Your task to perform on an android device: Empty the shopping cart on target.com. Add logitech g pro to the cart on target.com, then select checkout. Image 0: 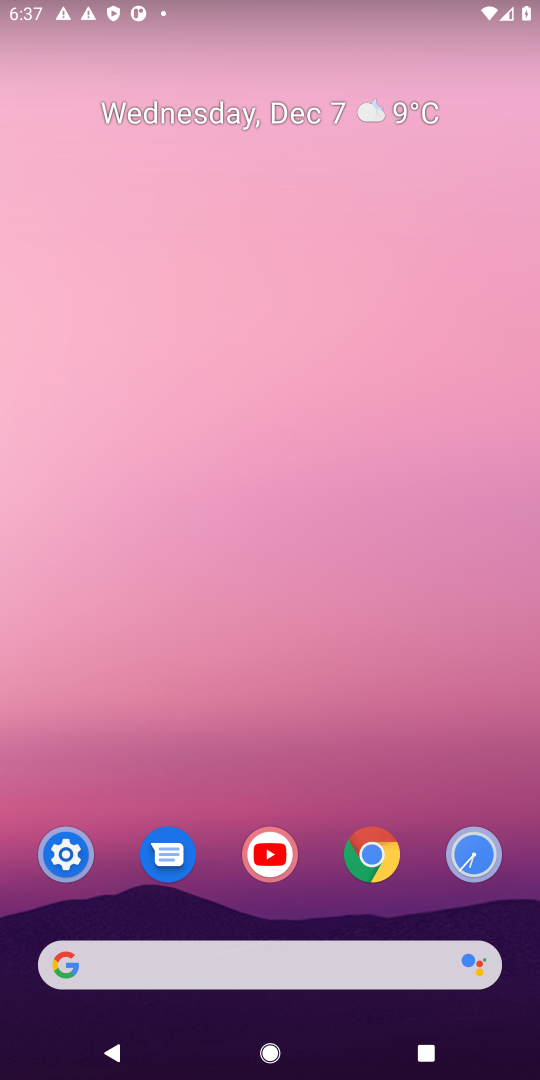
Step 0: click (146, 965)
Your task to perform on an android device: Empty the shopping cart on target.com. Add logitech g pro to the cart on target.com, then select checkout. Image 1: 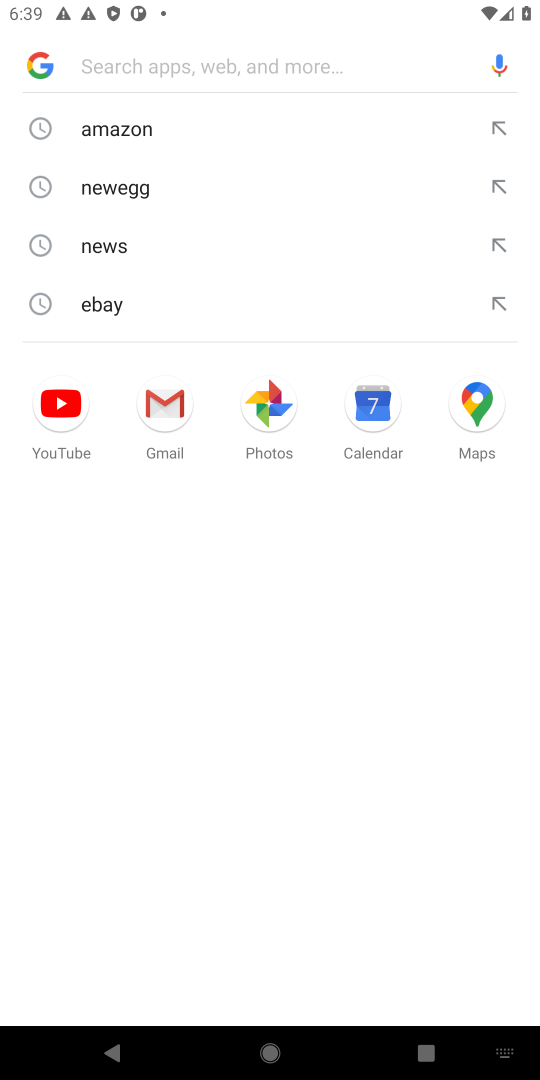
Step 1: type "target"
Your task to perform on an android device: Empty the shopping cart on target.com. Add logitech g pro to the cart on target.com, then select checkout. Image 2: 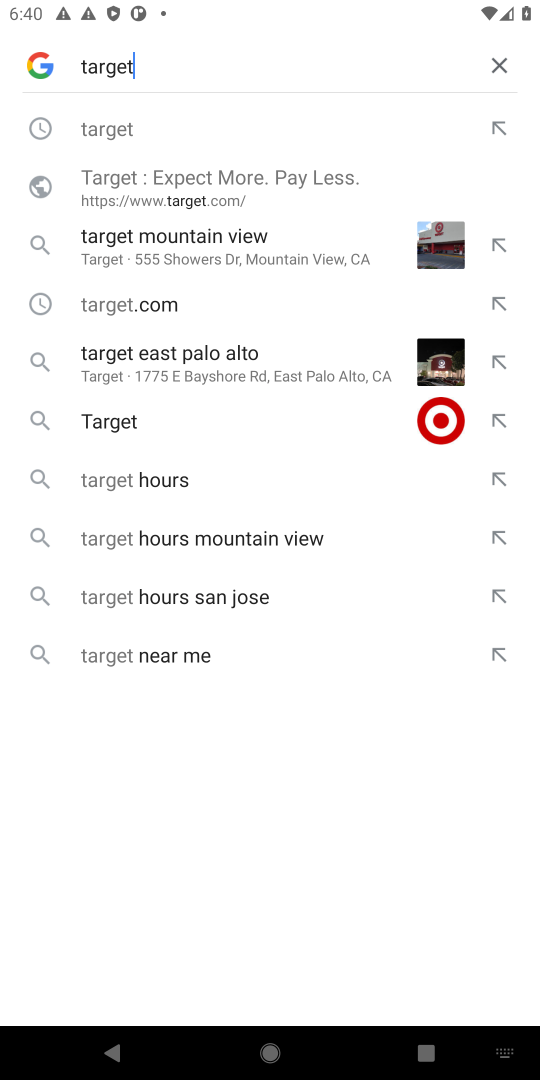
Step 2: click (294, 419)
Your task to perform on an android device: Empty the shopping cart on target.com. Add logitech g pro to the cart on target.com, then select checkout. Image 3: 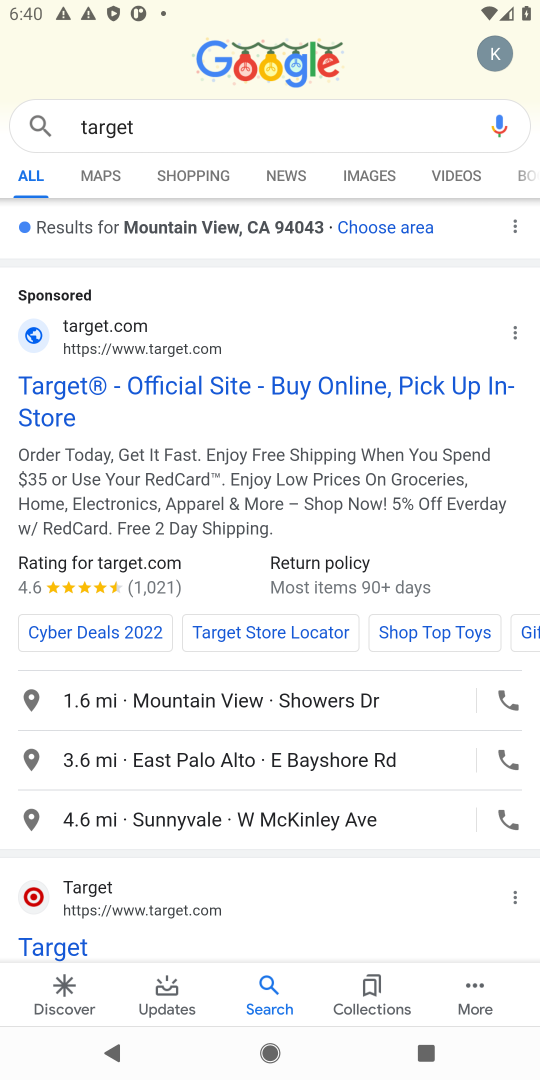
Step 3: click (180, 374)
Your task to perform on an android device: Empty the shopping cart on target.com. Add logitech g pro to the cart on target.com, then select checkout. Image 4: 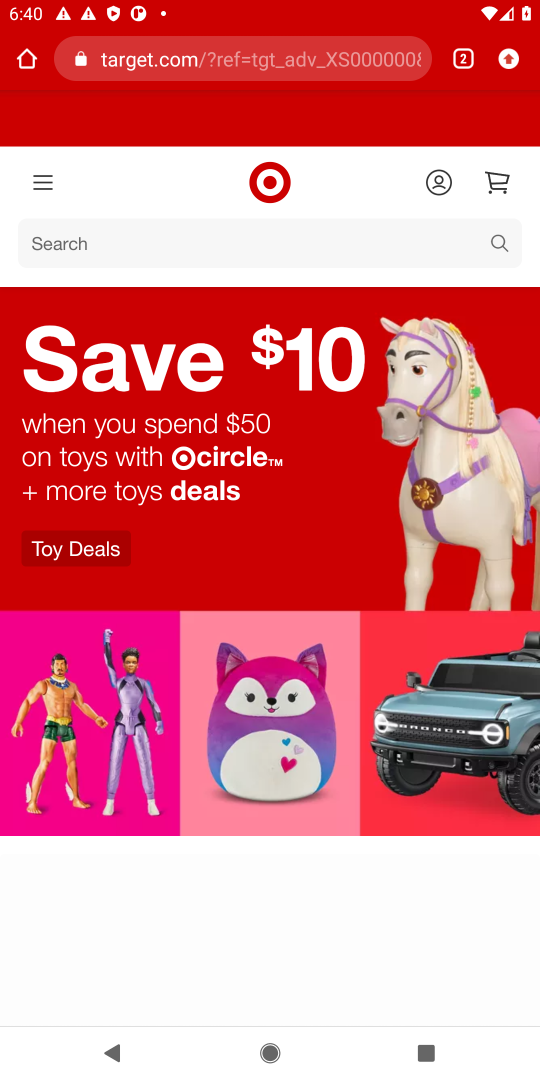
Step 4: click (41, 242)
Your task to perform on an android device: Empty the shopping cart on target.com. Add logitech g pro to the cart on target.com, then select checkout. Image 5: 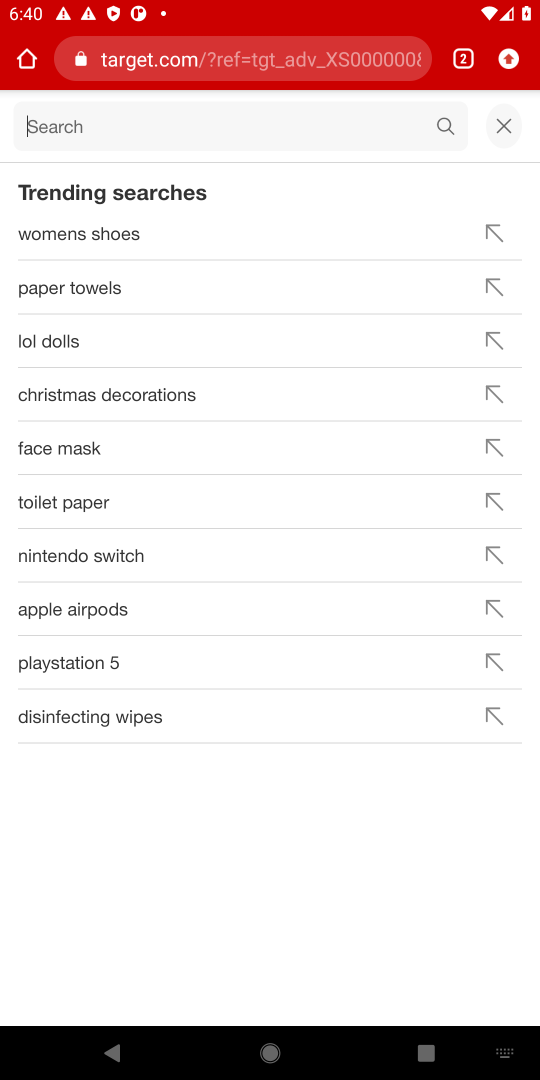
Step 5: type "add logitech g pro"
Your task to perform on an android device: Empty the shopping cart on target.com. Add logitech g pro to the cart on target.com, then select checkout. Image 6: 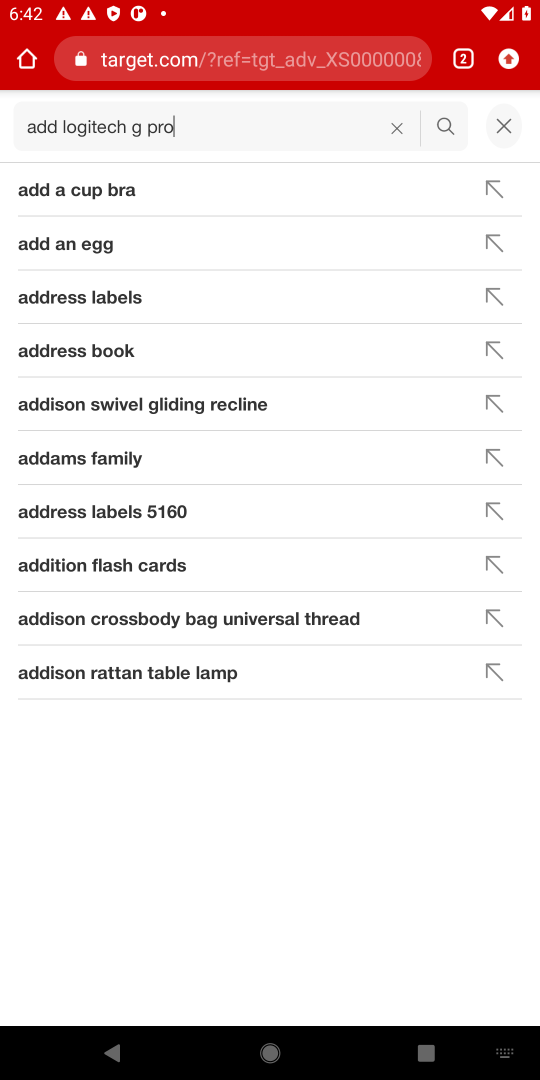
Step 6: task complete